Your task to perform on an android device: Open Maps and search for coffee Image 0: 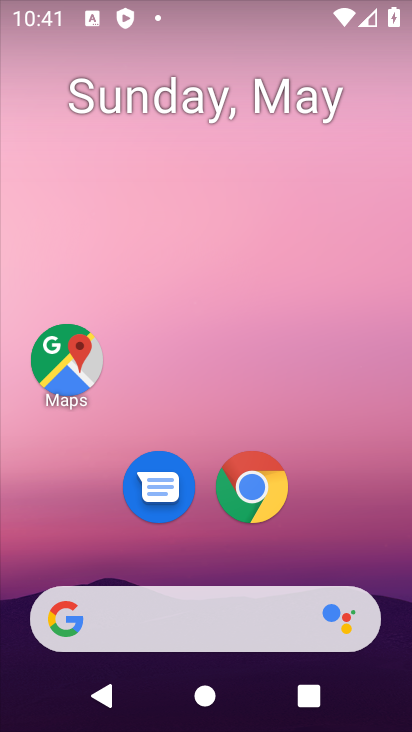
Step 0: drag from (93, 442) to (97, 6)
Your task to perform on an android device: Open Maps and search for coffee Image 1: 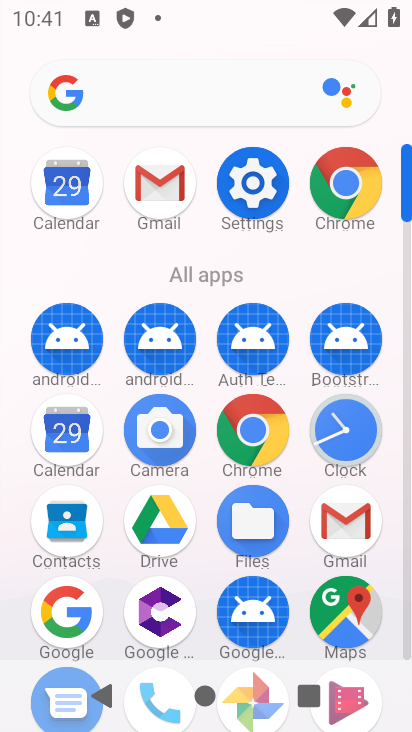
Step 1: click (343, 623)
Your task to perform on an android device: Open Maps and search for coffee Image 2: 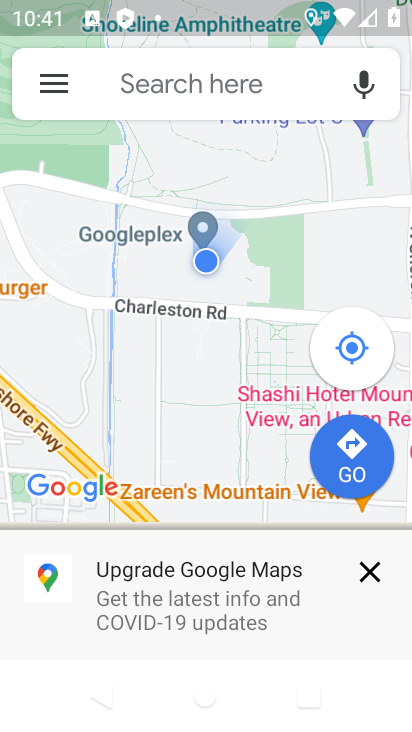
Step 2: click (154, 90)
Your task to perform on an android device: Open Maps and search for coffee Image 3: 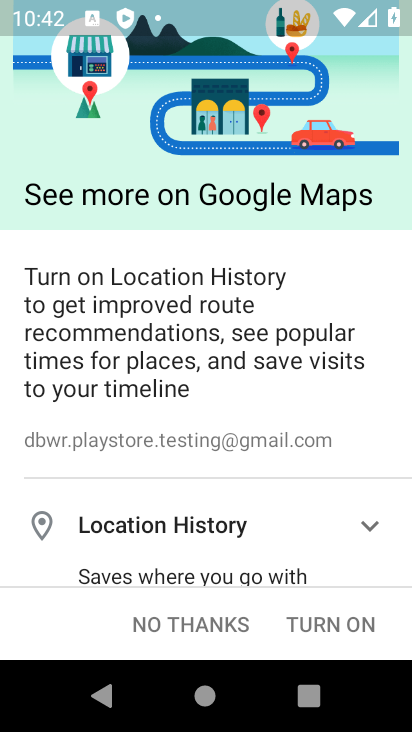
Step 3: click (362, 629)
Your task to perform on an android device: Open Maps and search for coffee Image 4: 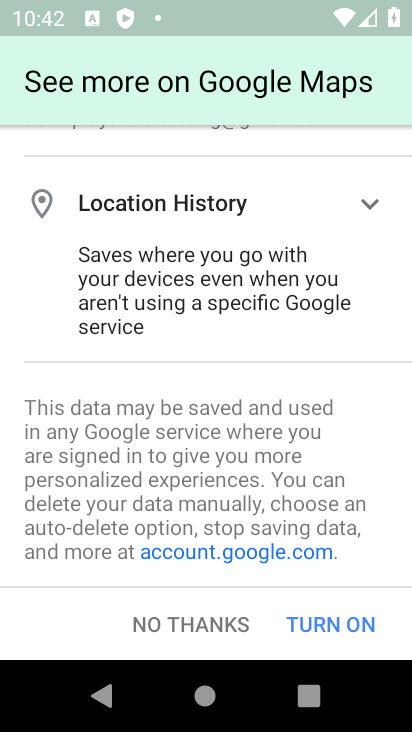
Step 4: click (362, 629)
Your task to perform on an android device: Open Maps and search for coffee Image 5: 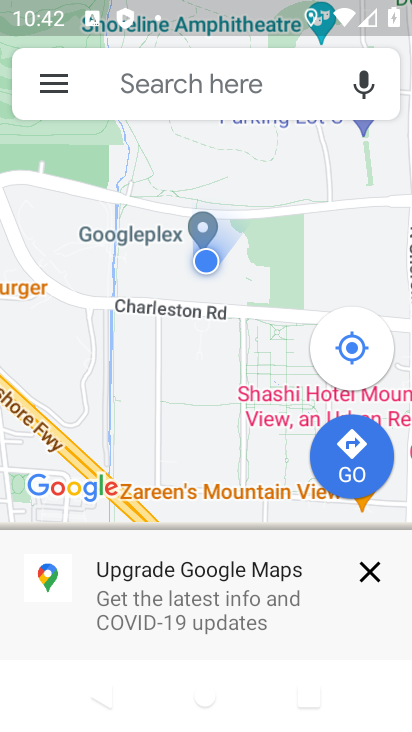
Step 5: click (217, 90)
Your task to perform on an android device: Open Maps and search for coffee Image 6: 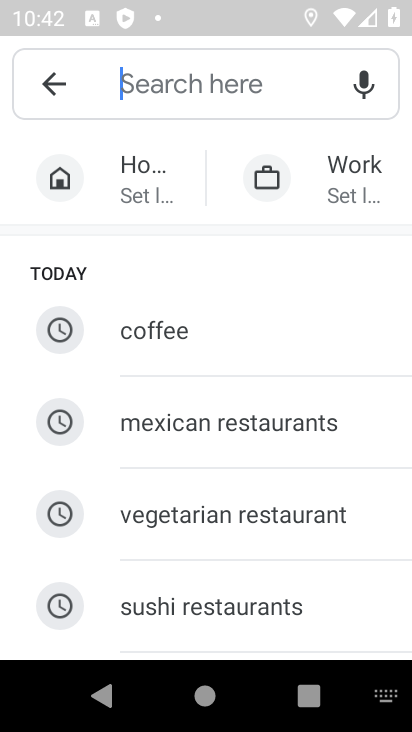
Step 6: type "coffee"
Your task to perform on an android device: Open Maps and search for coffee Image 7: 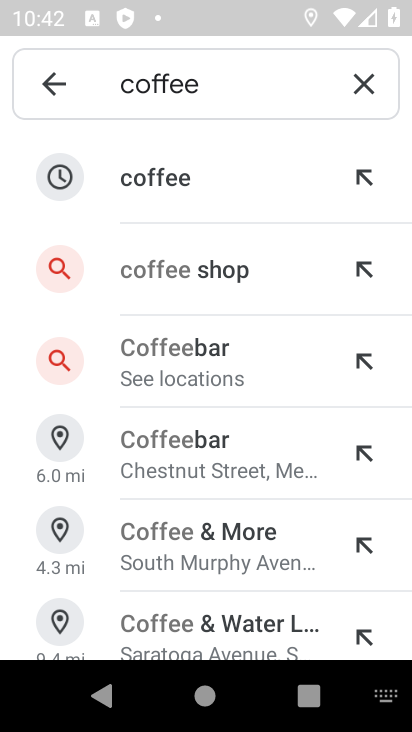
Step 7: click (131, 174)
Your task to perform on an android device: Open Maps and search for coffee Image 8: 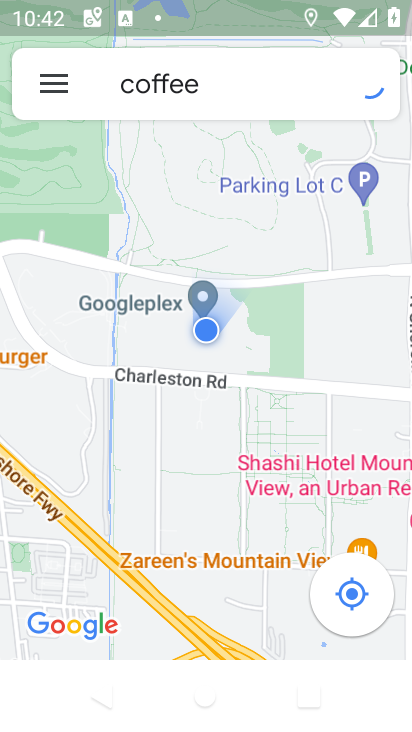
Step 8: task complete